Your task to perform on an android device: change the clock style Image 0: 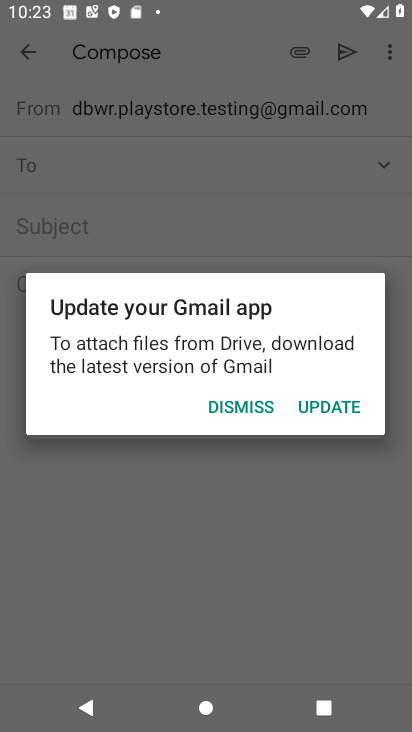
Step 0: press home button
Your task to perform on an android device: change the clock style Image 1: 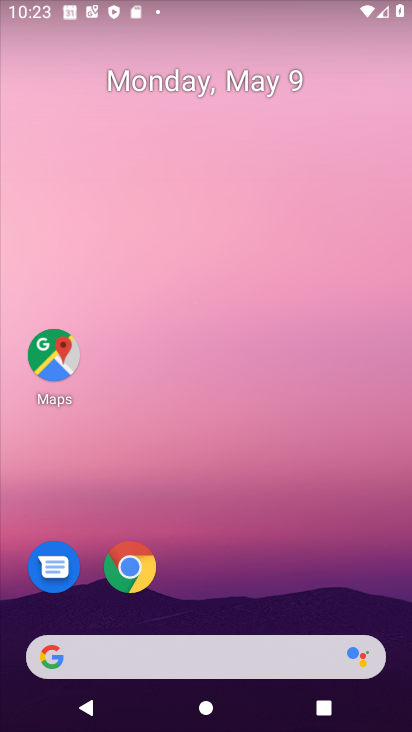
Step 1: drag from (224, 653) to (151, 145)
Your task to perform on an android device: change the clock style Image 2: 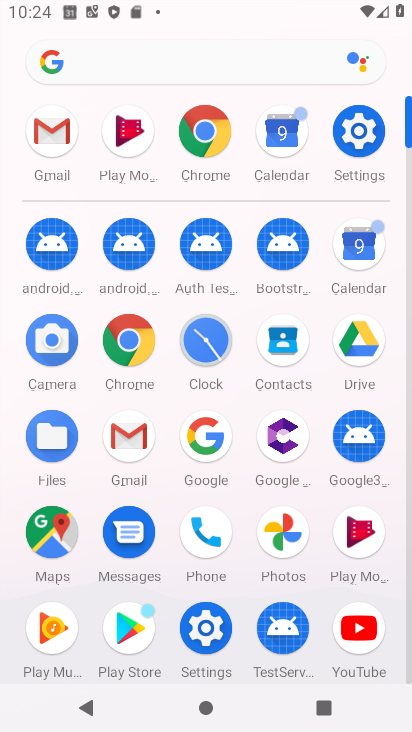
Step 2: click (209, 352)
Your task to perform on an android device: change the clock style Image 3: 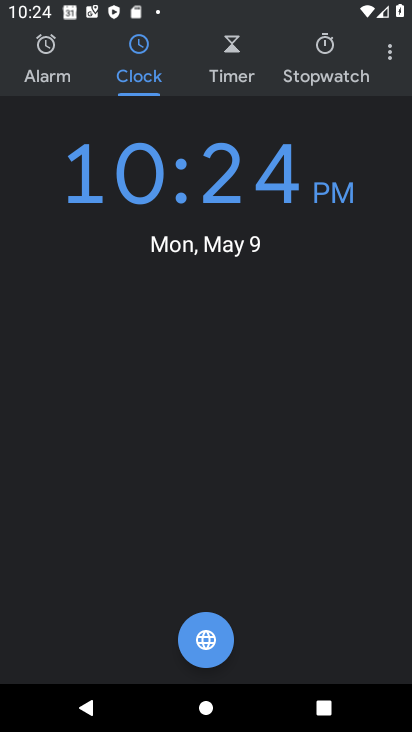
Step 3: click (387, 55)
Your task to perform on an android device: change the clock style Image 4: 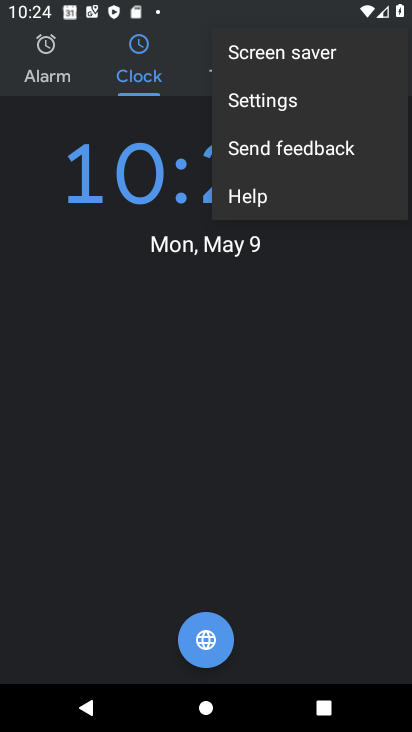
Step 4: click (303, 110)
Your task to perform on an android device: change the clock style Image 5: 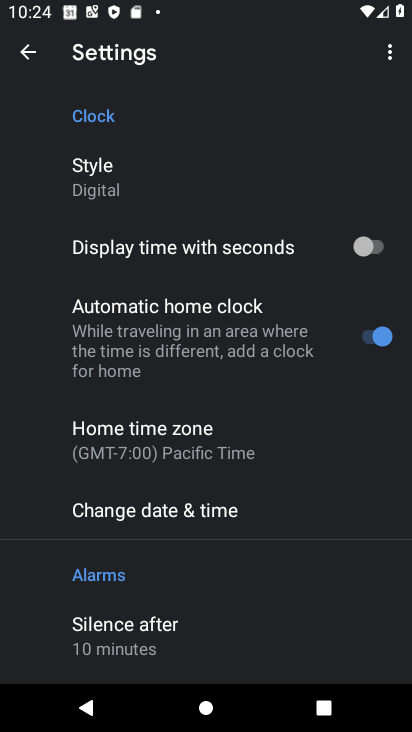
Step 5: click (92, 170)
Your task to perform on an android device: change the clock style Image 6: 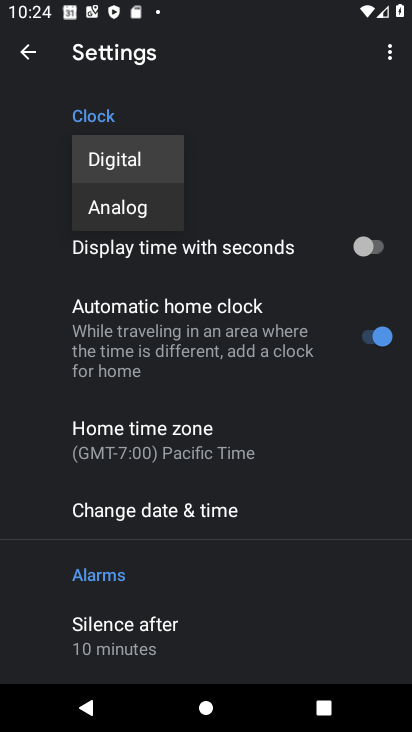
Step 6: click (160, 204)
Your task to perform on an android device: change the clock style Image 7: 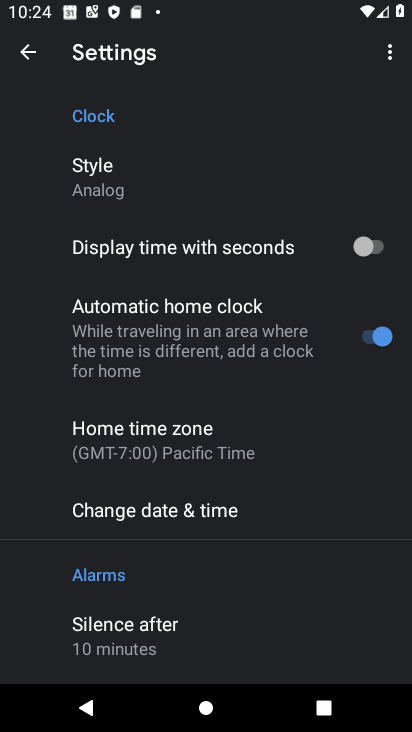
Step 7: task complete